Your task to perform on an android device: choose inbox layout in the gmail app Image 0: 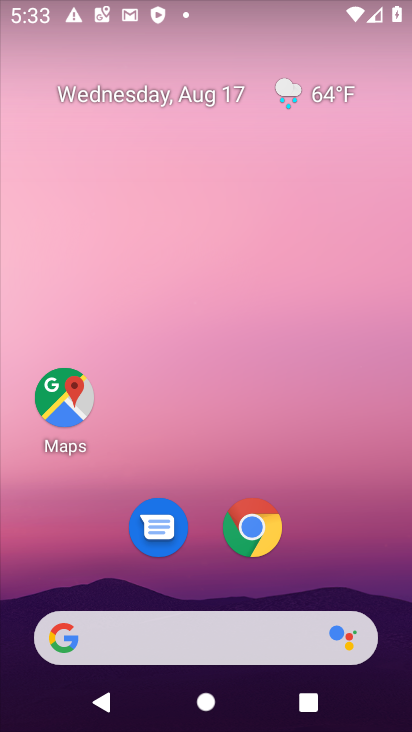
Step 0: drag from (228, 550) to (190, 150)
Your task to perform on an android device: choose inbox layout in the gmail app Image 1: 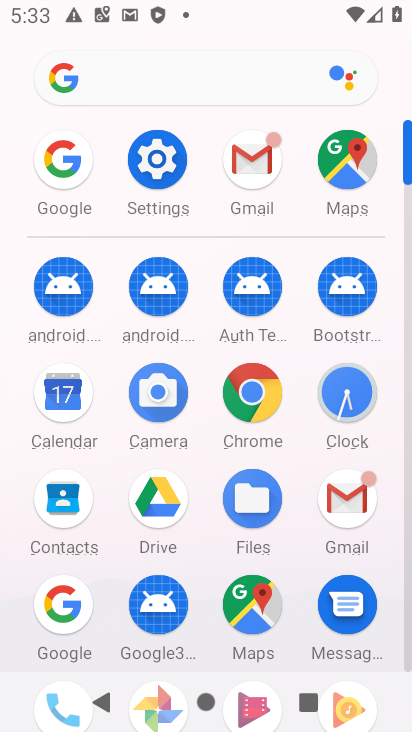
Step 1: click (332, 502)
Your task to perform on an android device: choose inbox layout in the gmail app Image 2: 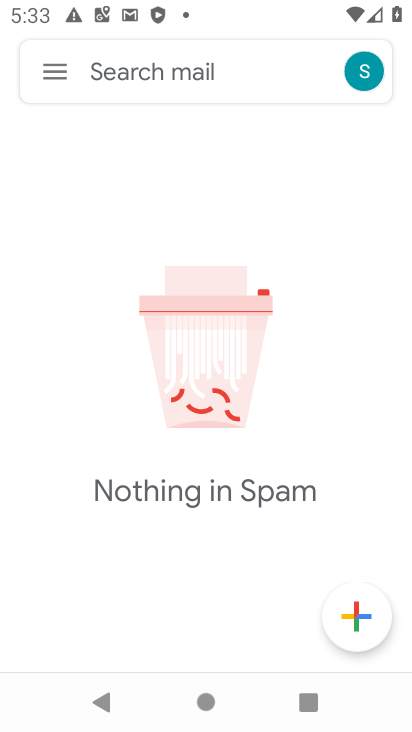
Step 2: drag from (59, 73) to (106, 73)
Your task to perform on an android device: choose inbox layout in the gmail app Image 3: 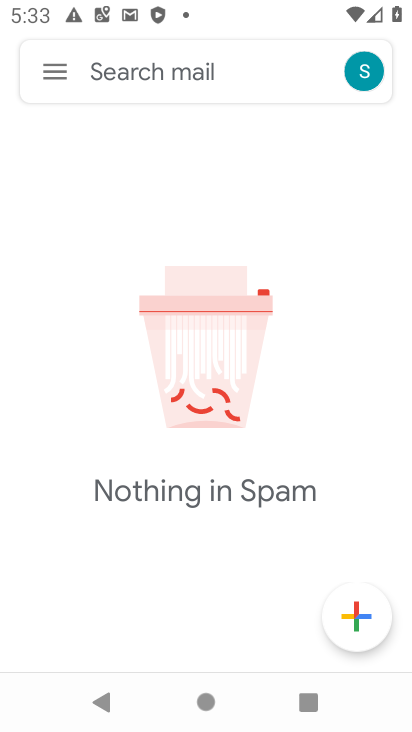
Step 3: click (63, 72)
Your task to perform on an android device: choose inbox layout in the gmail app Image 4: 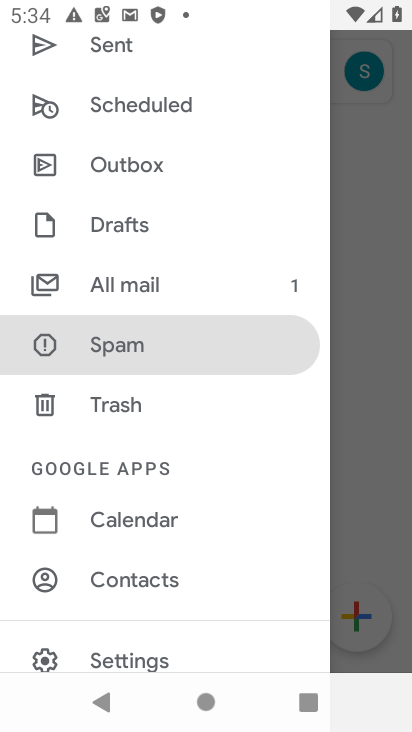
Step 4: click (123, 660)
Your task to perform on an android device: choose inbox layout in the gmail app Image 5: 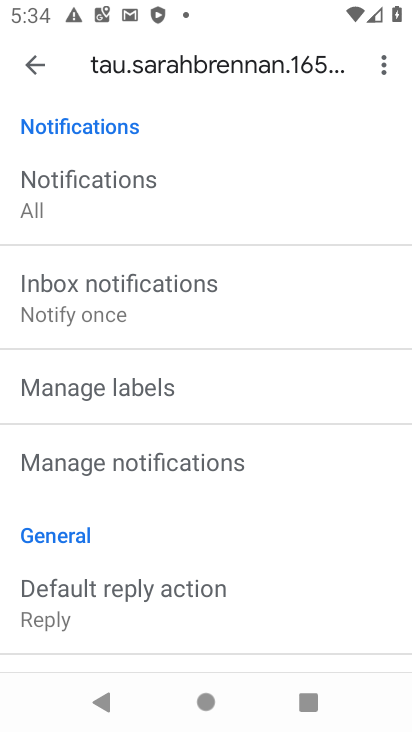
Step 5: drag from (94, 133) to (106, 547)
Your task to perform on an android device: choose inbox layout in the gmail app Image 6: 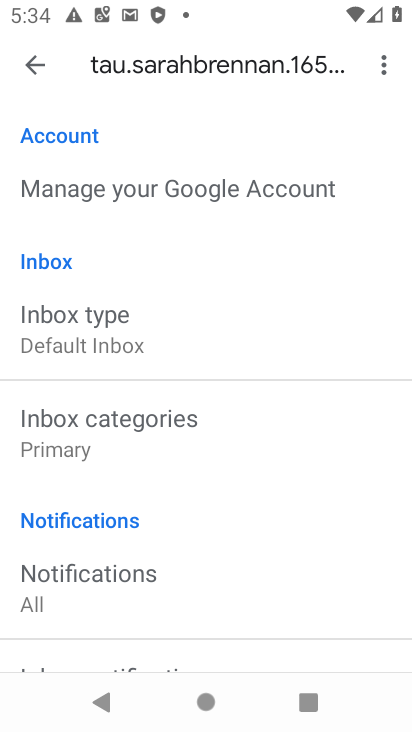
Step 6: click (75, 337)
Your task to perform on an android device: choose inbox layout in the gmail app Image 7: 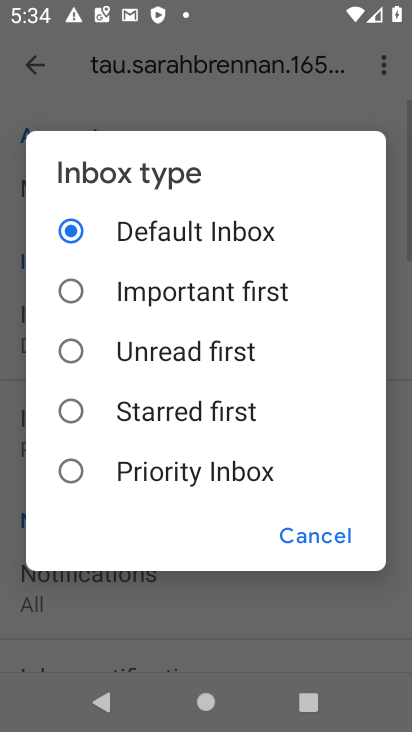
Step 7: click (91, 289)
Your task to perform on an android device: choose inbox layout in the gmail app Image 8: 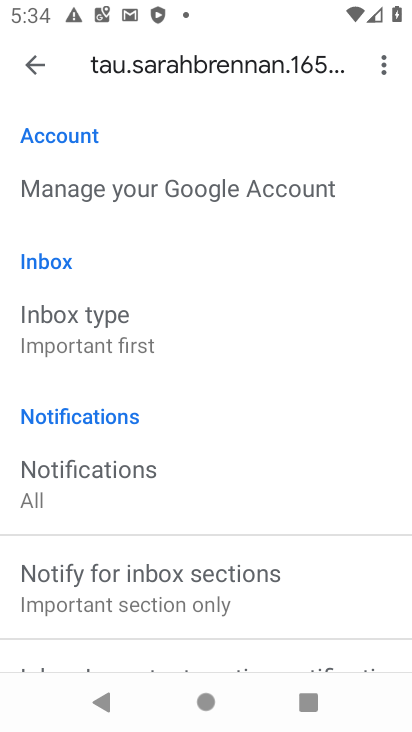
Step 8: task complete